Your task to perform on an android device: Go to Maps Image 0: 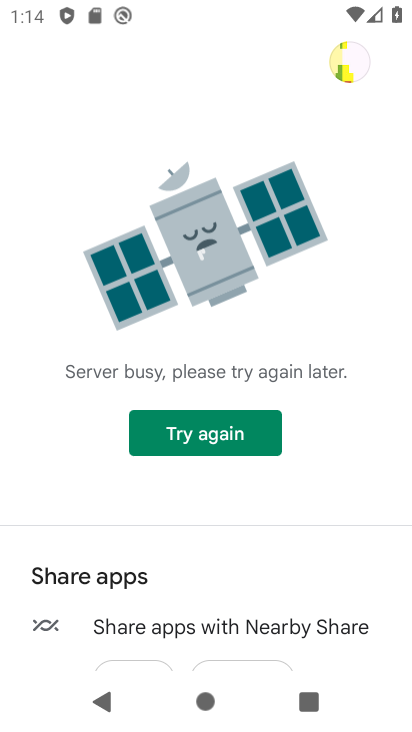
Step 0: press home button
Your task to perform on an android device: Go to Maps Image 1: 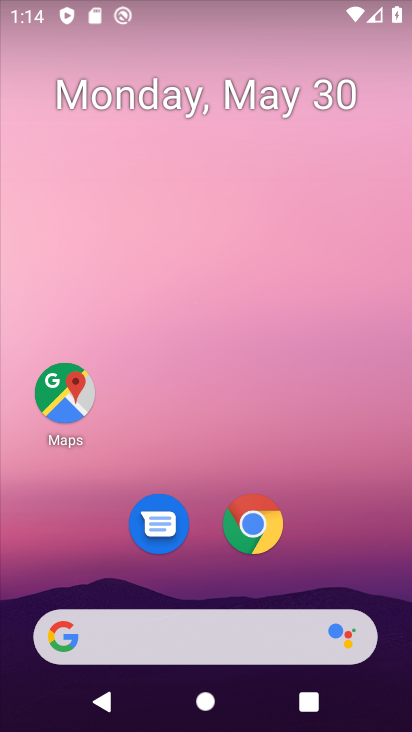
Step 1: click (60, 387)
Your task to perform on an android device: Go to Maps Image 2: 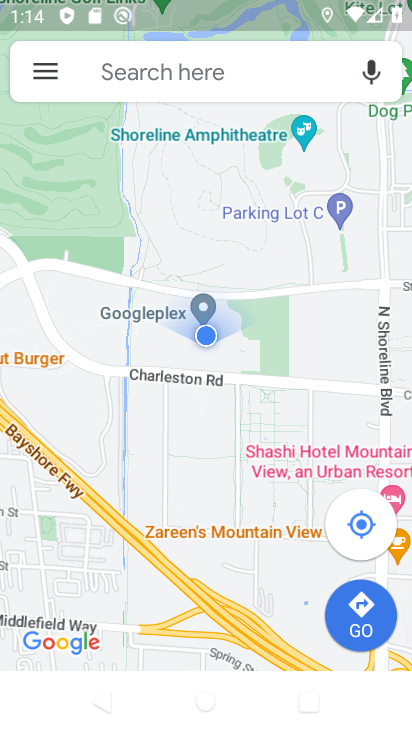
Step 2: task complete